Your task to perform on an android device: toggle priority inbox in the gmail app Image 0: 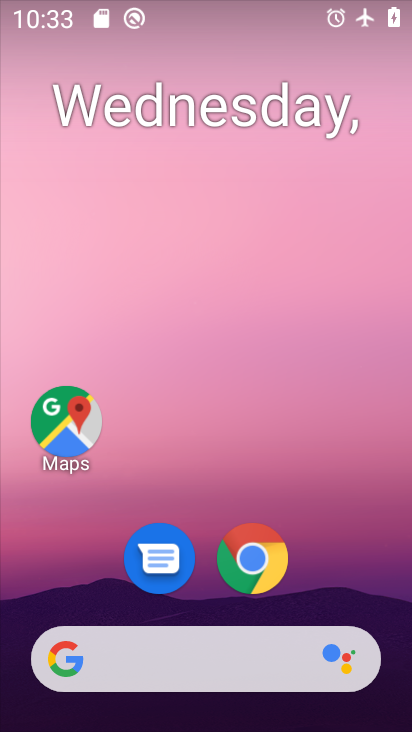
Step 0: drag from (345, 581) to (346, 89)
Your task to perform on an android device: toggle priority inbox in the gmail app Image 1: 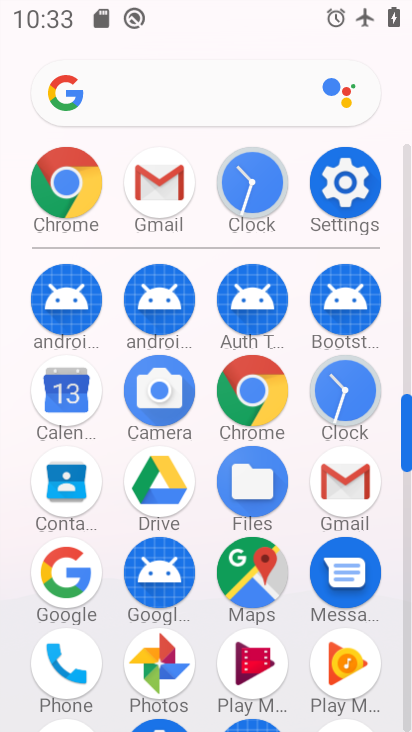
Step 1: click (344, 489)
Your task to perform on an android device: toggle priority inbox in the gmail app Image 2: 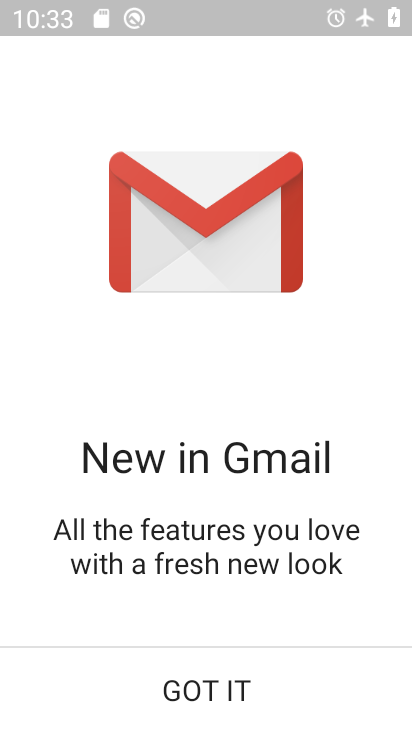
Step 2: click (217, 675)
Your task to perform on an android device: toggle priority inbox in the gmail app Image 3: 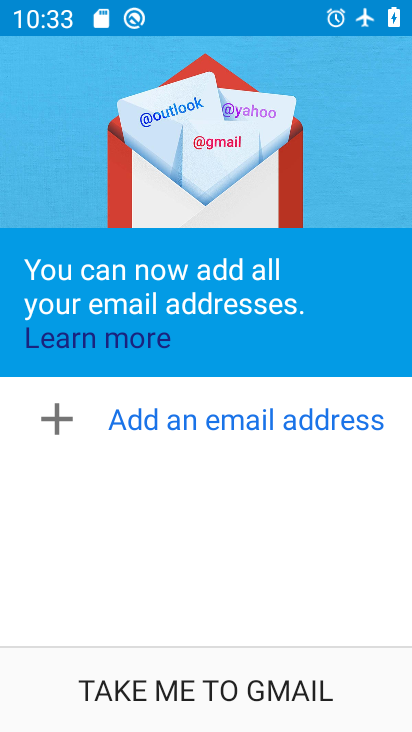
Step 3: click (207, 689)
Your task to perform on an android device: toggle priority inbox in the gmail app Image 4: 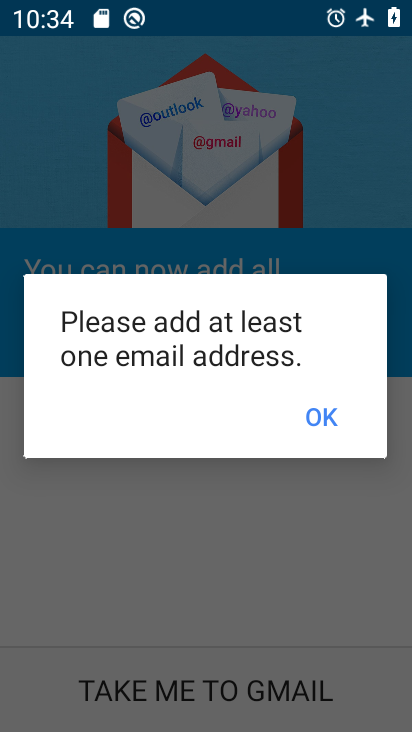
Step 4: task complete